Your task to perform on an android device: turn on bluetooth scan Image 0: 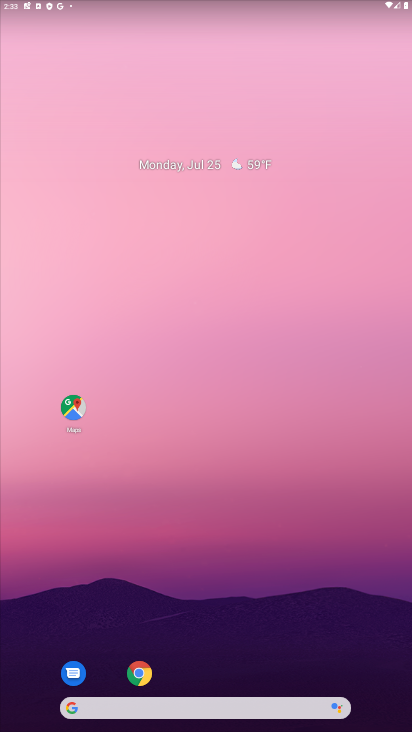
Step 0: drag from (240, 5) to (273, 630)
Your task to perform on an android device: turn on bluetooth scan Image 1: 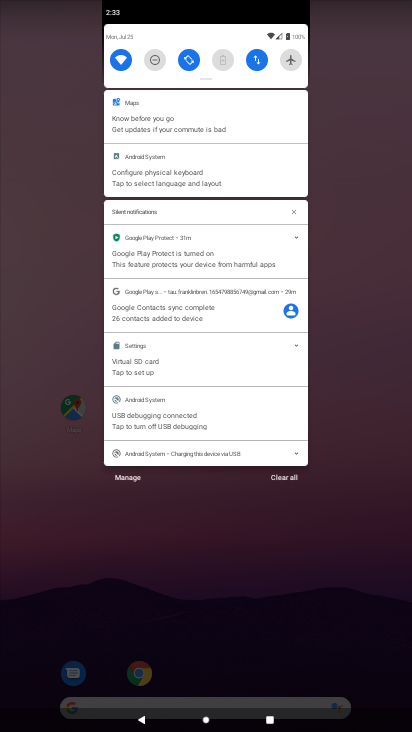
Step 1: drag from (200, 40) to (169, 670)
Your task to perform on an android device: turn on bluetooth scan Image 2: 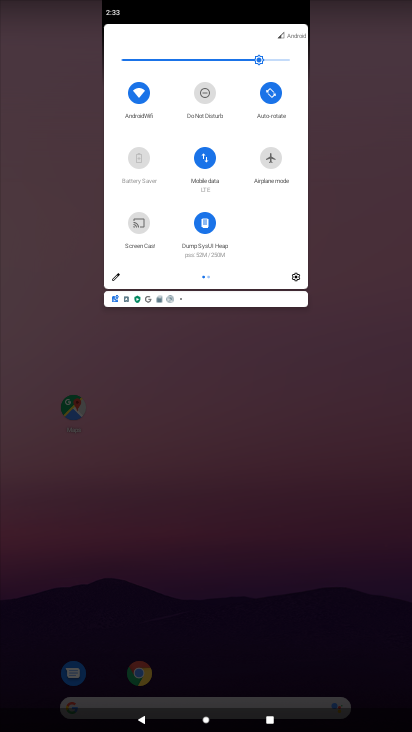
Step 2: click (295, 276)
Your task to perform on an android device: turn on bluetooth scan Image 3: 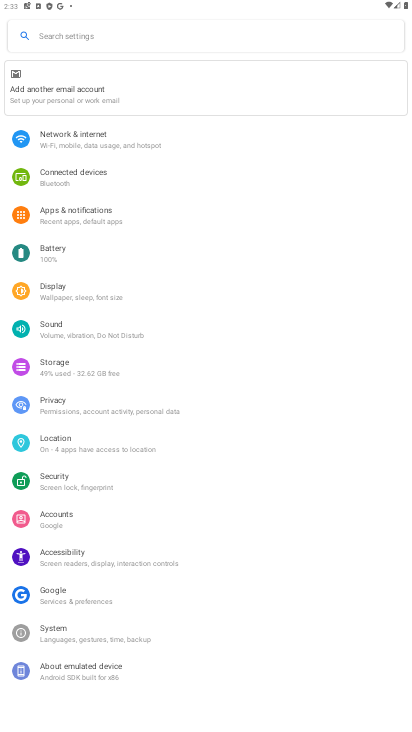
Step 3: click (116, 451)
Your task to perform on an android device: turn on bluetooth scan Image 4: 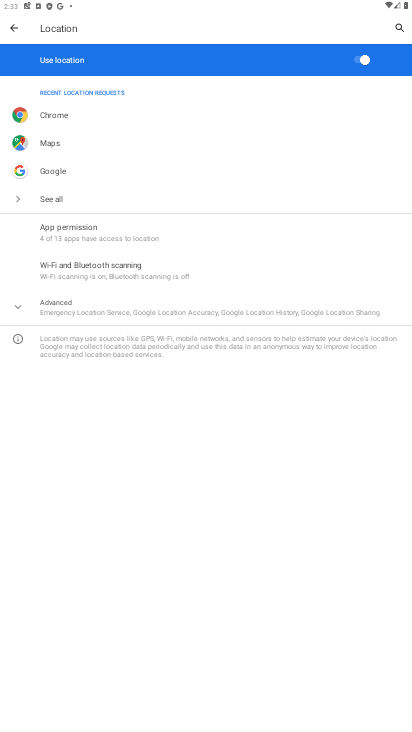
Step 4: click (154, 449)
Your task to perform on an android device: turn on bluetooth scan Image 5: 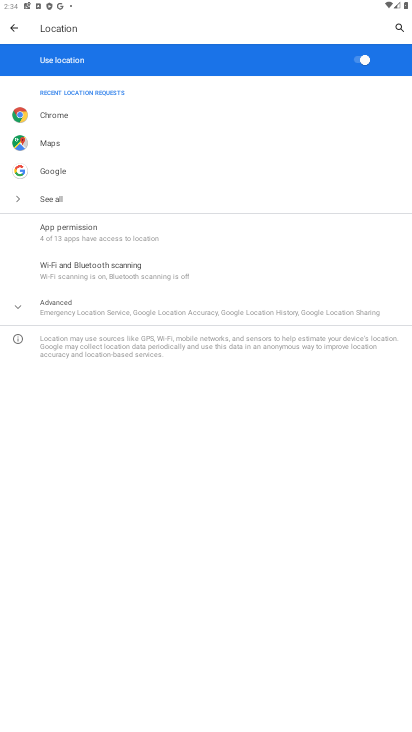
Step 5: click (193, 270)
Your task to perform on an android device: turn on bluetooth scan Image 6: 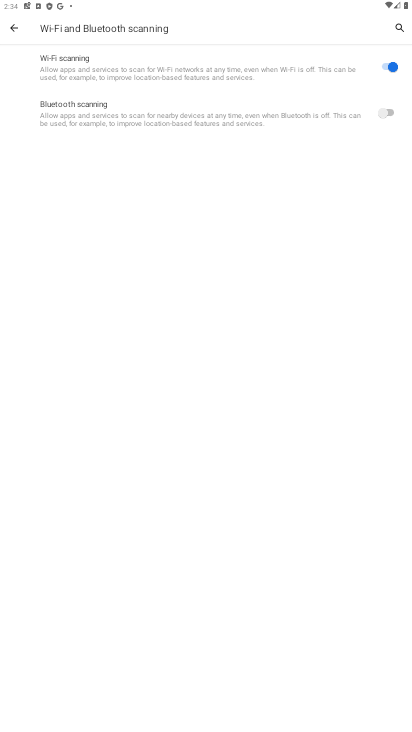
Step 6: click (396, 116)
Your task to perform on an android device: turn on bluetooth scan Image 7: 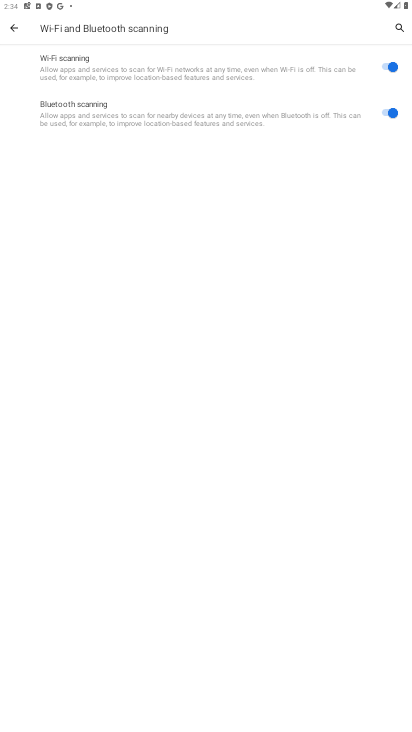
Step 7: task complete